Your task to perform on an android device: see sites visited before in the chrome app Image 0: 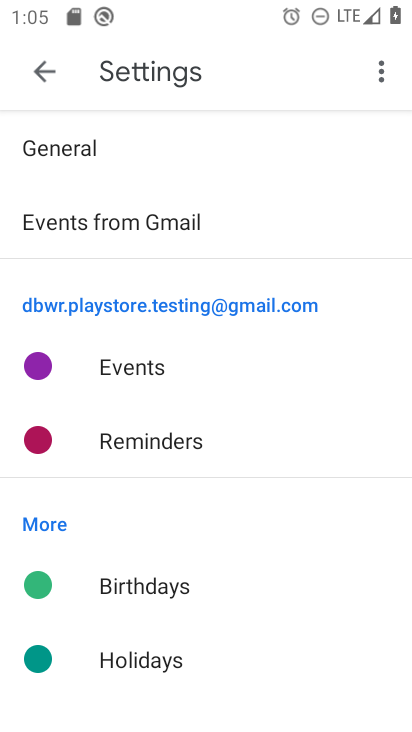
Step 0: press home button
Your task to perform on an android device: see sites visited before in the chrome app Image 1: 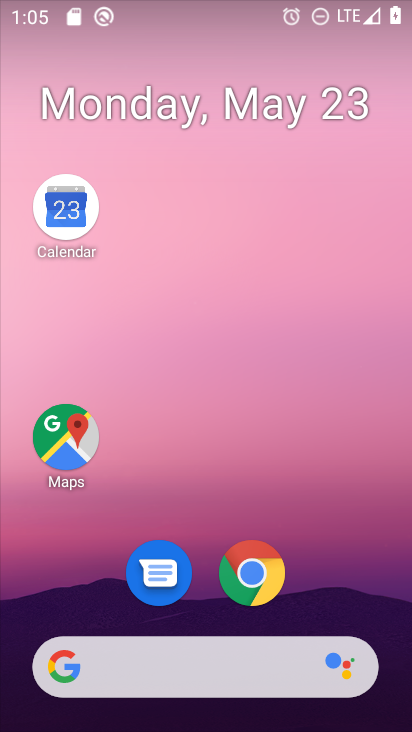
Step 1: click (252, 570)
Your task to perform on an android device: see sites visited before in the chrome app Image 2: 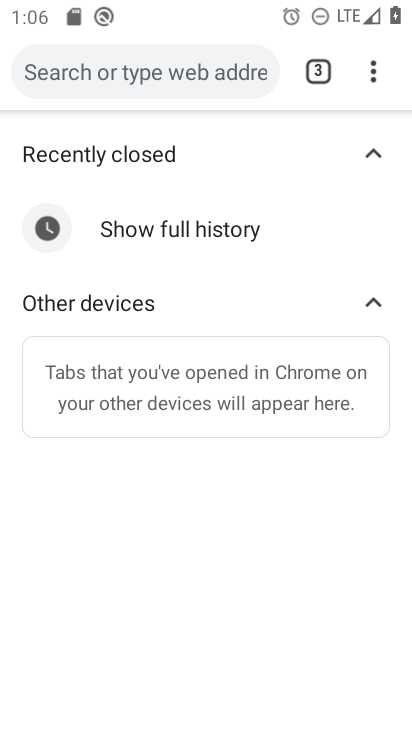
Step 2: click (371, 68)
Your task to perform on an android device: see sites visited before in the chrome app Image 3: 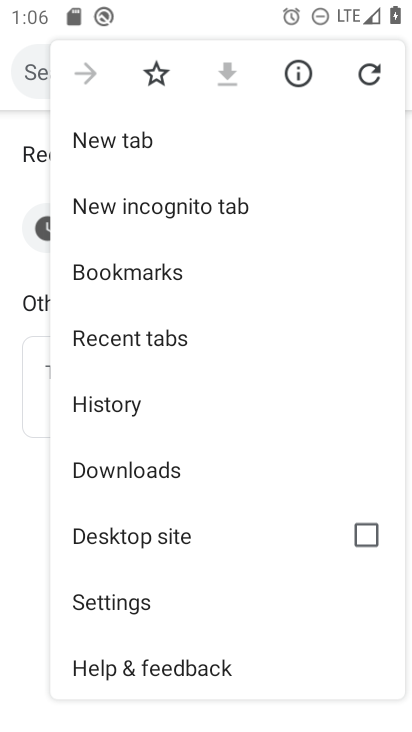
Step 3: click (127, 389)
Your task to perform on an android device: see sites visited before in the chrome app Image 4: 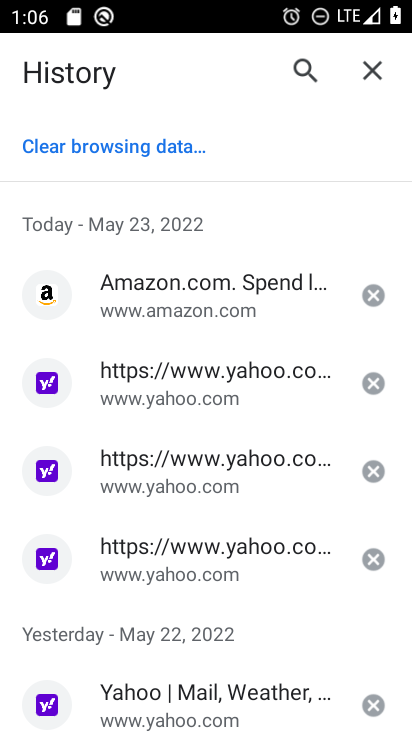
Step 4: task complete